Your task to perform on an android device: add a contact in the contacts app Image 0: 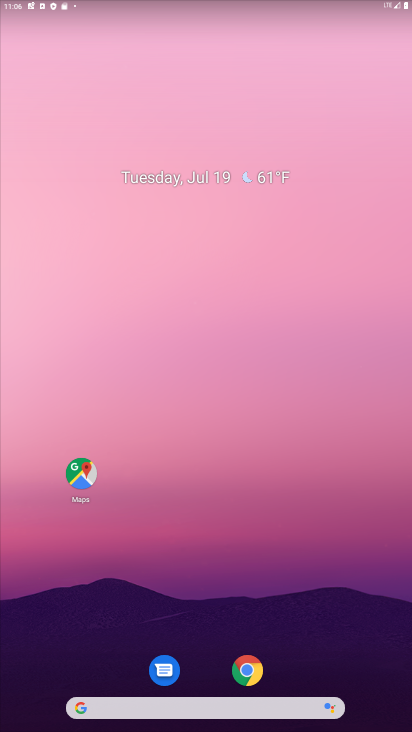
Step 0: drag from (255, 588) to (281, 120)
Your task to perform on an android device: add a contact in the contacts app Image 1: 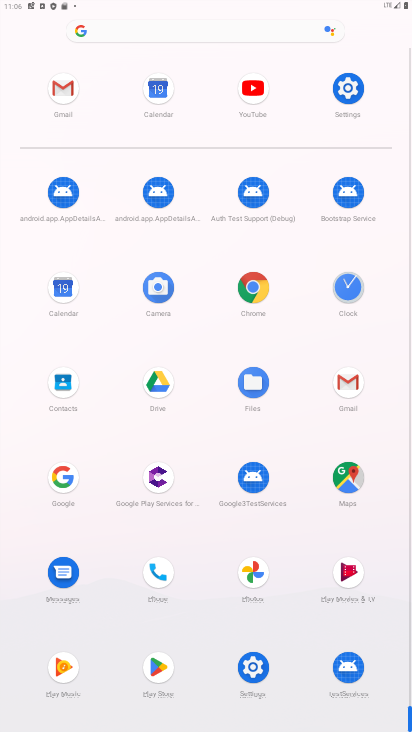
Step 1: click (66, 387)
Your task to perform on an android device: add a contact in the contacts app Image 2: 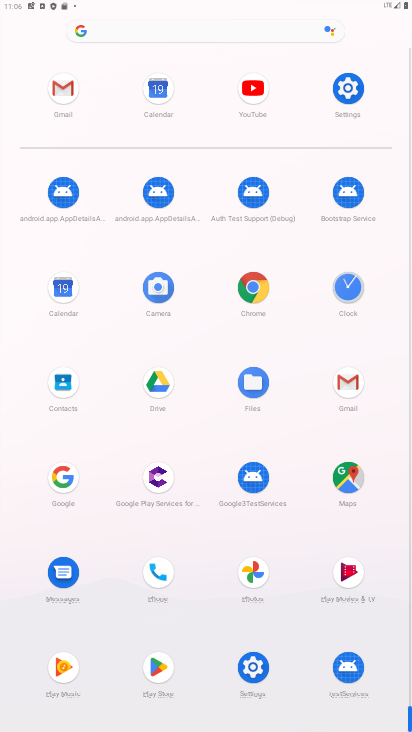
Step 2: click (66, 387)
Your task to perform on an android device: add a contact in the contacts app Image 3: 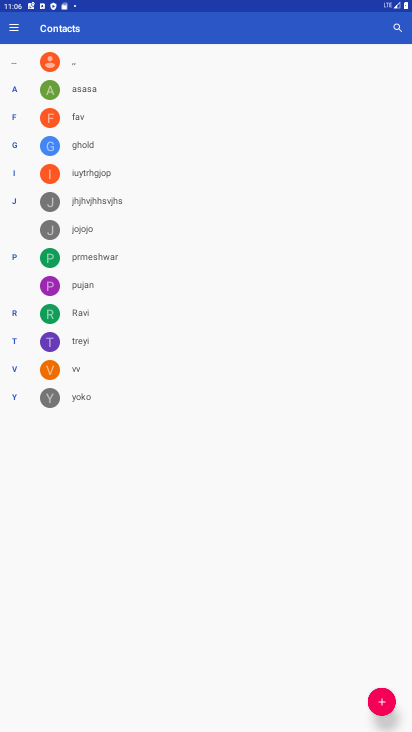
Step 3: click (388, 702)
Your task to perform on an android device: add a contact in the contacts app Image 4: 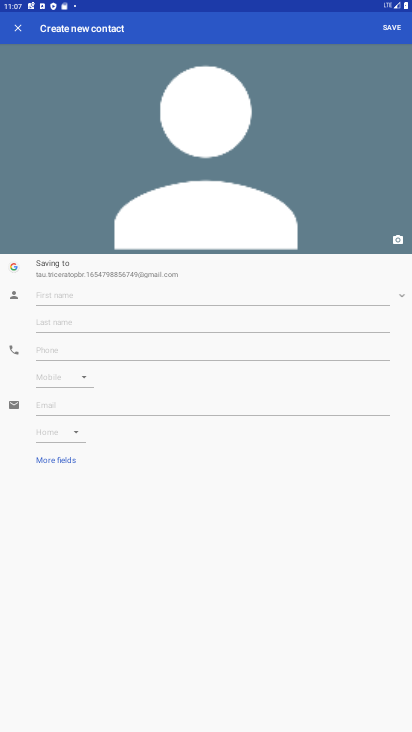
Step 4: click (184, 296)
Your task to perform on an android device: add a contact in the contacts app Image 5: 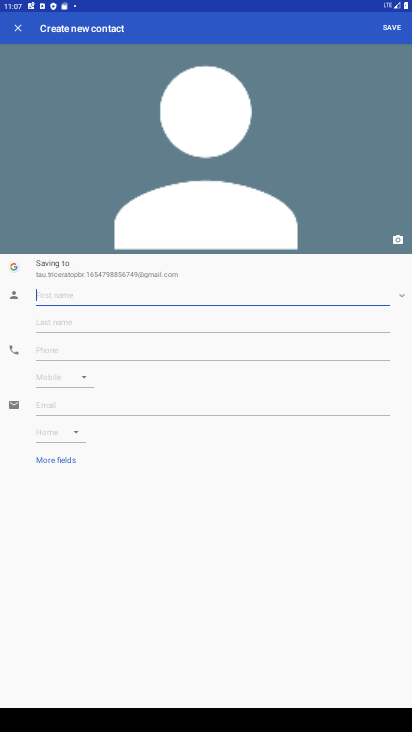
Step 5: type "gcjnh"
Your task to perform on an android device: add a contact in the contacts app Image 6: 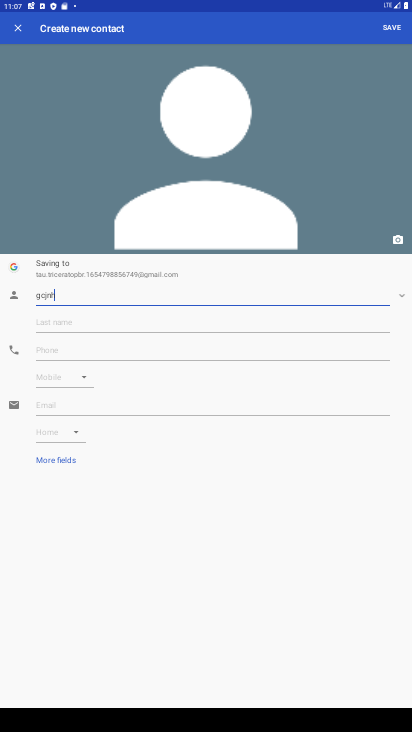
Step 6: click (206, 342)
Your task to perform on an android device: add a contact in the contacts app Image 7: 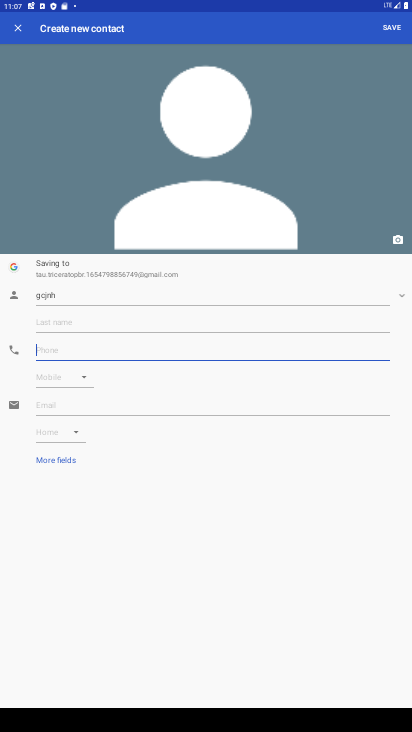
Step 7: type "790"
Your task to perform on an android device: add a contact in the contacts app Image 8: 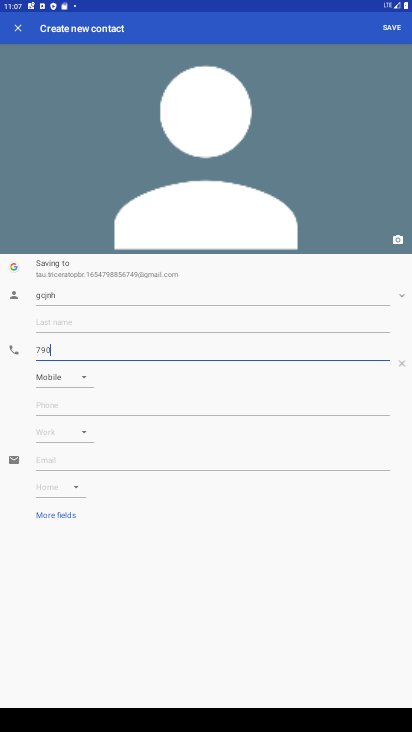
Step 8: click (392, 26)
Your task to perform on an android device: add a contact in the contacts app Image 9: 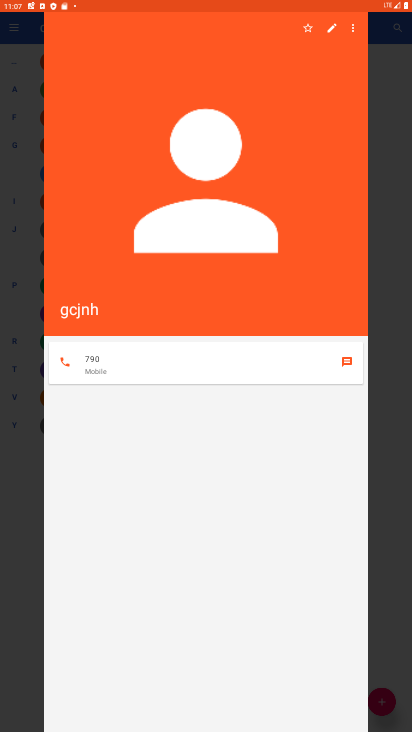
Step 9: task complete